Your task to perform on an android device: add a contact Image 0: 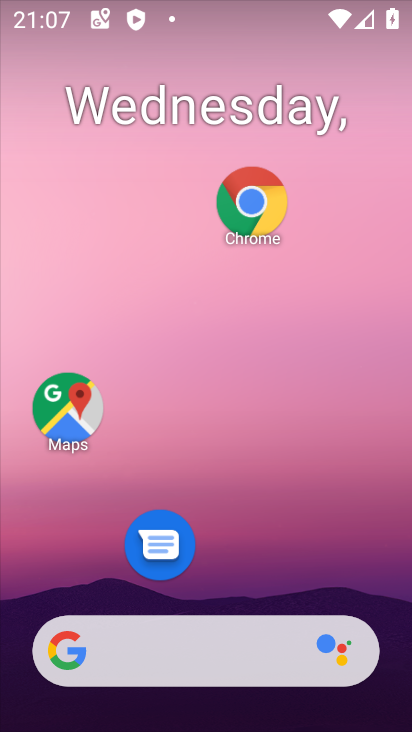
Step 0: drag from (240, 588) to (42, 186)
Your task to perform on an android device: add a contact Image 1: 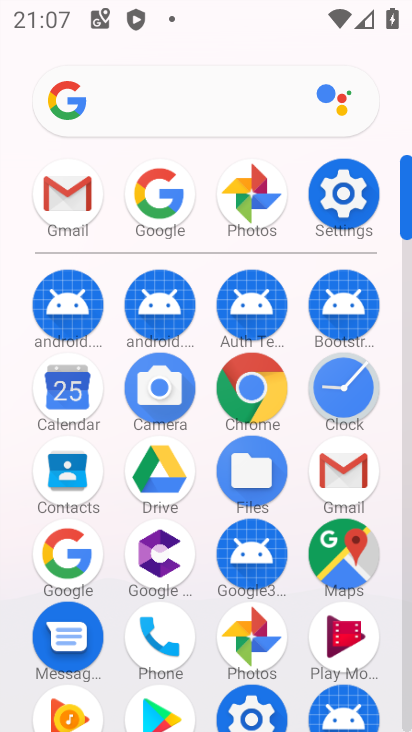
Step 1: click (73, 476)
Your task to perform on an android device: add a contact Image 2: 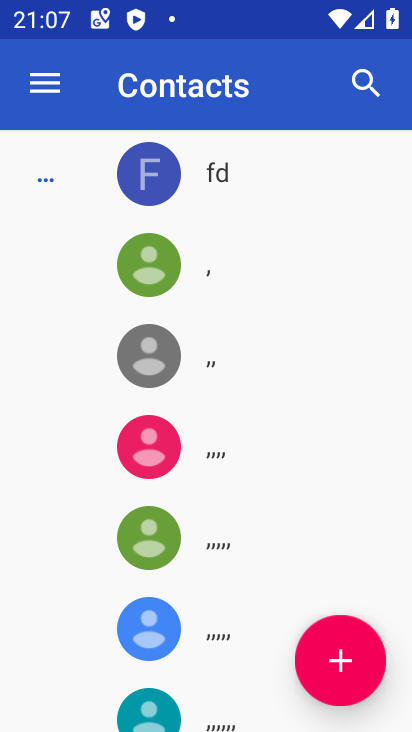
Step 2: click (330, 632)
Your task to perform on an android device: add a contact Image 3: 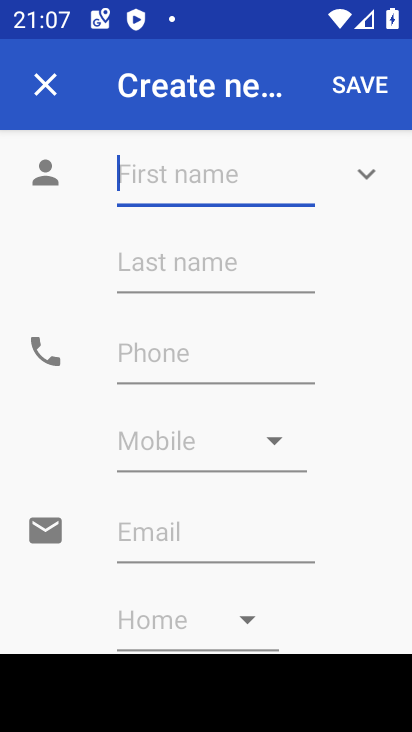
Step 3: type "nnnnnnnn"
Your task to perform on an android device: add a contact Image 4: 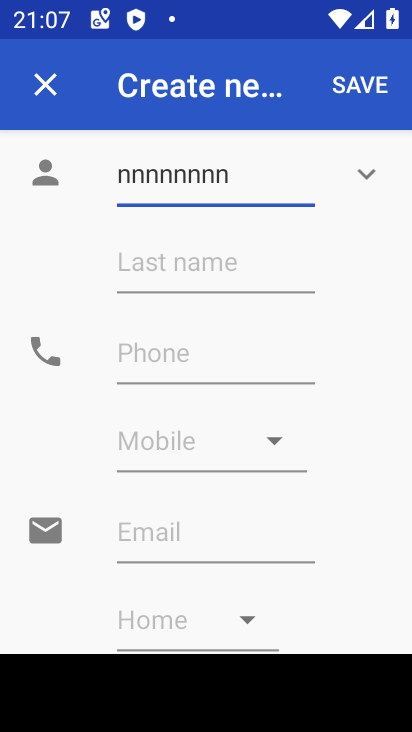
Step 4: click (186, 367)
Your task to perform on an android device: add a contact Image 5: 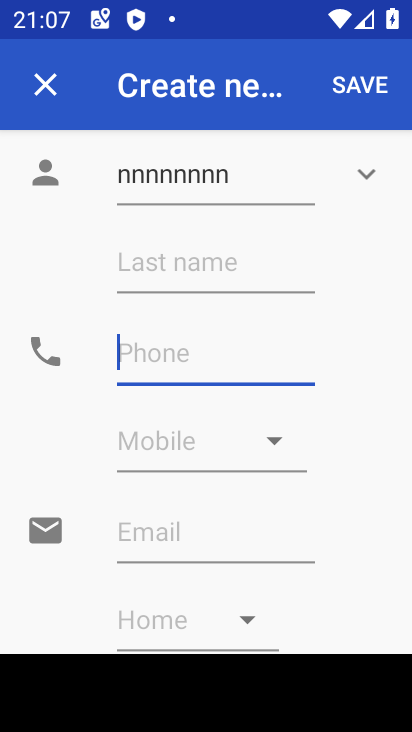
Step 5: type "9876543456"
Your task to perform on an android device: add a contact Image 6: 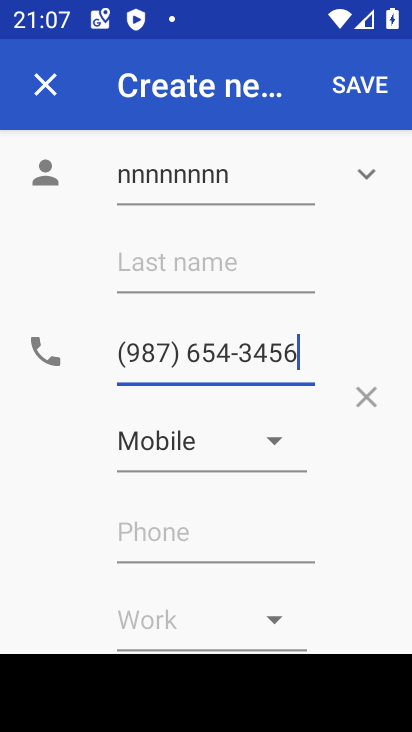
Step 6: click (397, 110)
Your task to perform on an android device: add a contact Image 7: 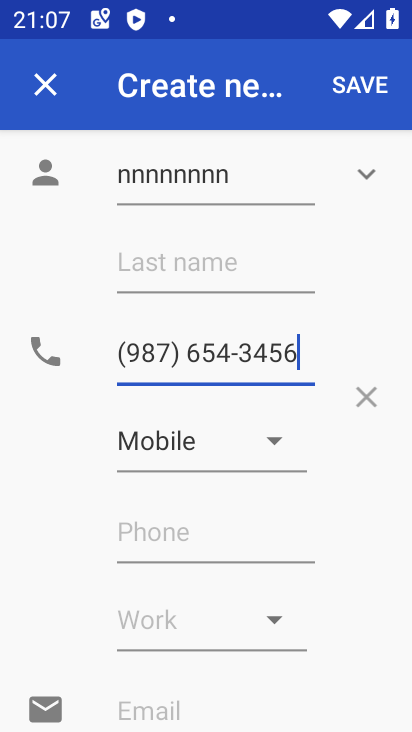
Step 7: click (384, 101)
Your task to perform on an android device: add a contact Image 8: 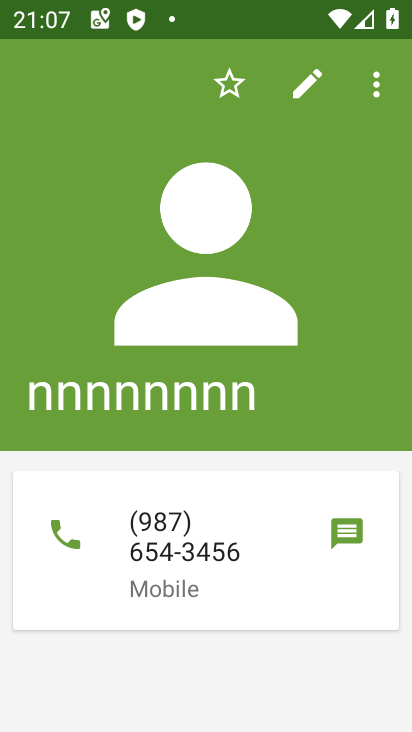
Step 8: task complete